Your task to perform on an android device: Turn on the flashlight Image 0: 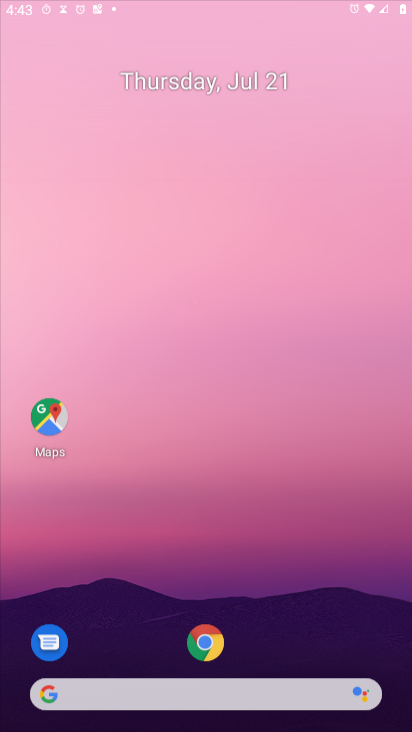
Step 0: press home button
Your task to perform on an android device: Turn on the flashlight Image 1: 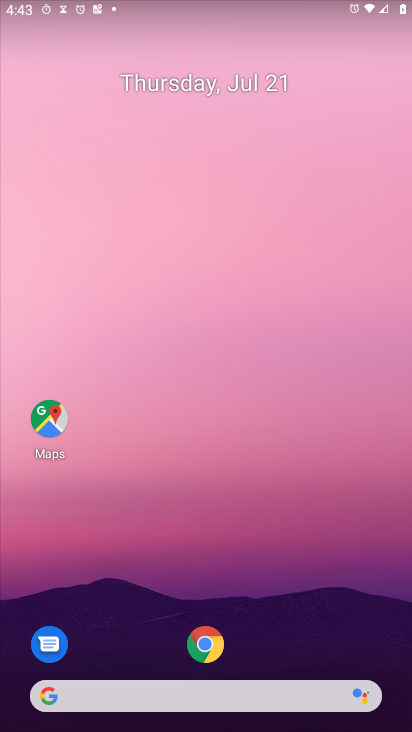
Step 1: task complete